Your task to perform on an android device: Go to notification settings Image 0: 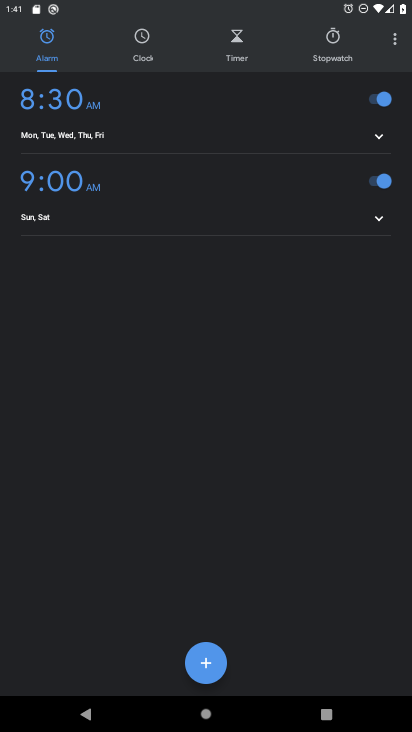
Step 0: press home button
Your task to perform on an android device: Go to notification settings Image 1: 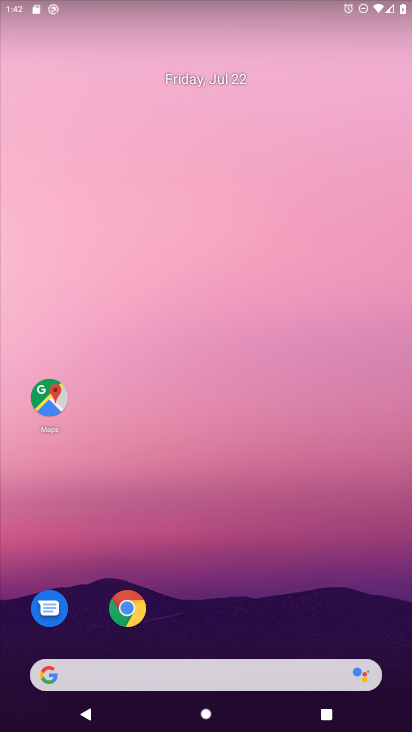
Step 1: drag from (337, 590) to (203, 111)
Your task to perform on an android device: Go to notification settings Image 2: 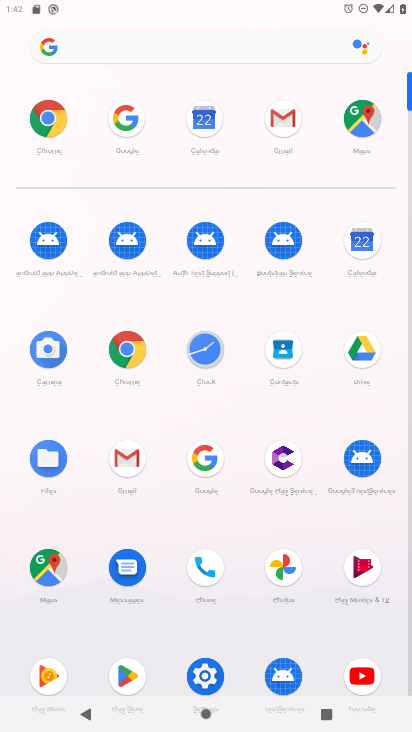
Step 2: click (206, 674)
Your task to perform on an android device: Go to notification settings Image 3: 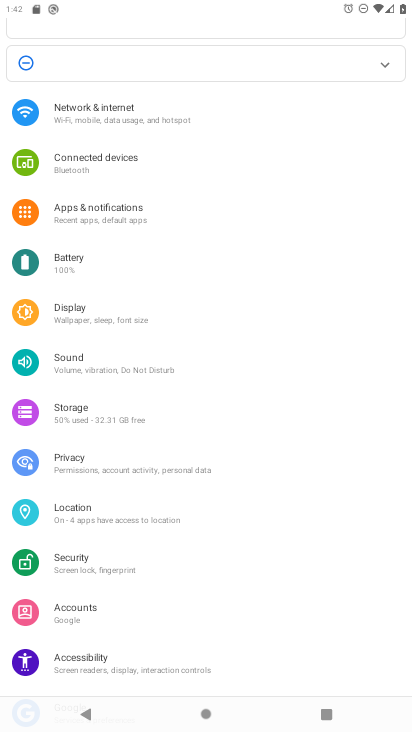
Step 3: click (108, 222)
Your task to perform on an android device: Go to notification settings Image 4: 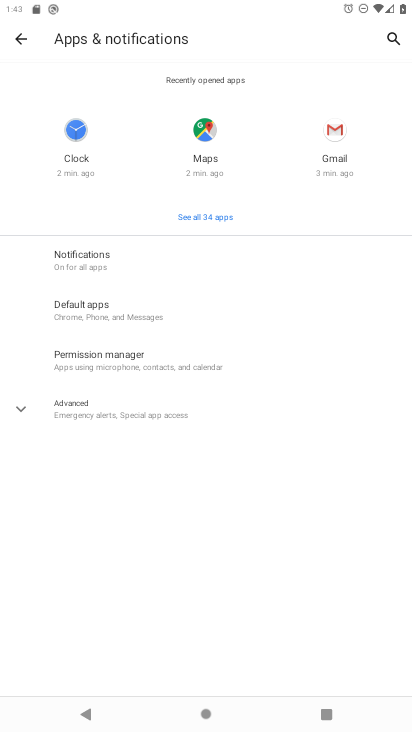
Step 4: click (100, 254)
Your task to perform on an android device: Go to notification settings Image 5: 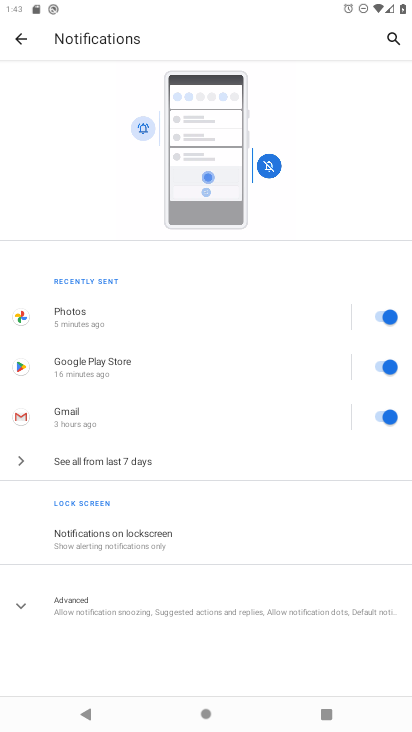
Step 5: task complete